Your task to perform on an android device: open a new tab in the chrome app Image 0: 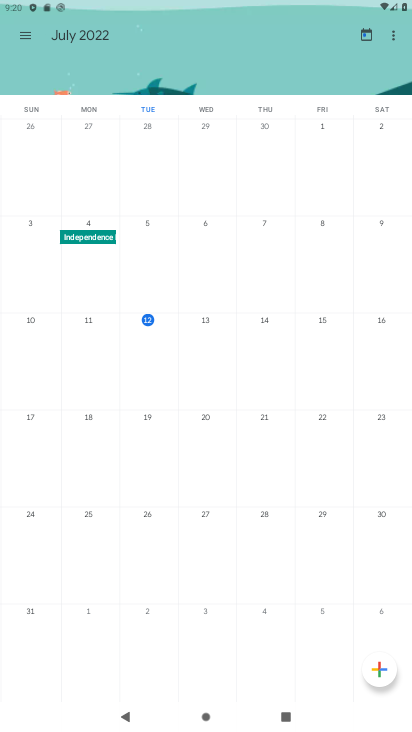
Step 0: press home button
Your task to perform on an android device: open a new tab in the chrome app Image 1: 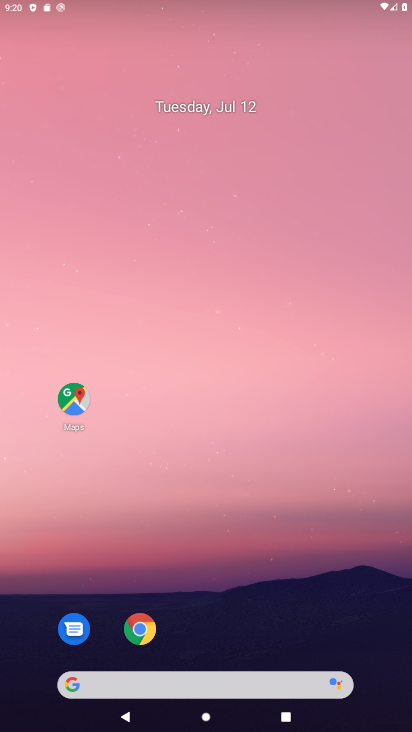
Step 1: drag from (254, 643) to (379, 140)
Your task to perform on an android device: open a new tab in the chrome app Image 2: 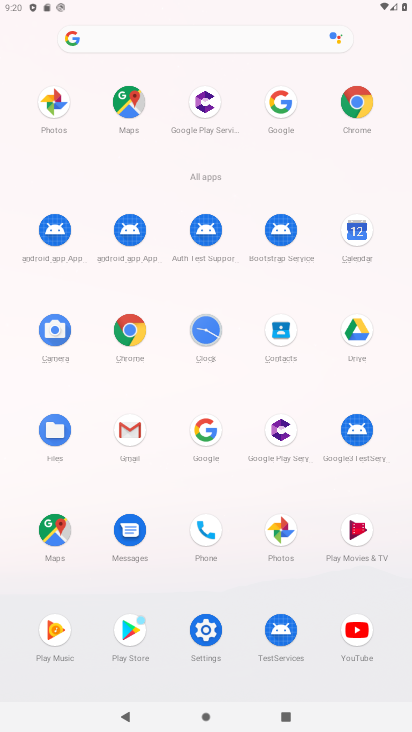
Step 2: click (131, 329)
Your task to perform on an android device: open a new tab in the chrome app Image 3: 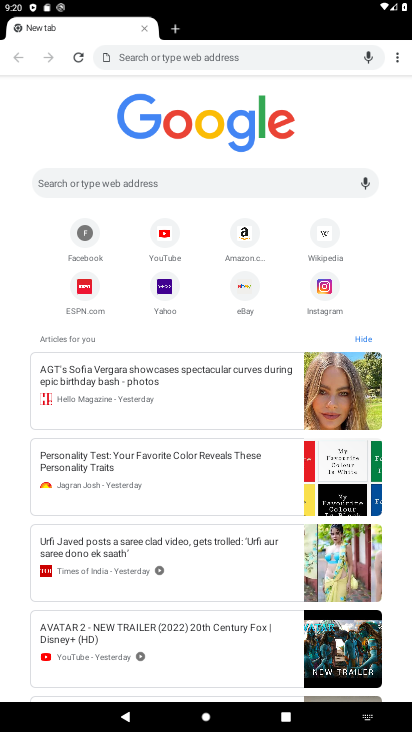
Step 3: click (400, 51)
Your task to perform on an android device: open a new tab in the chrome app Image 4: 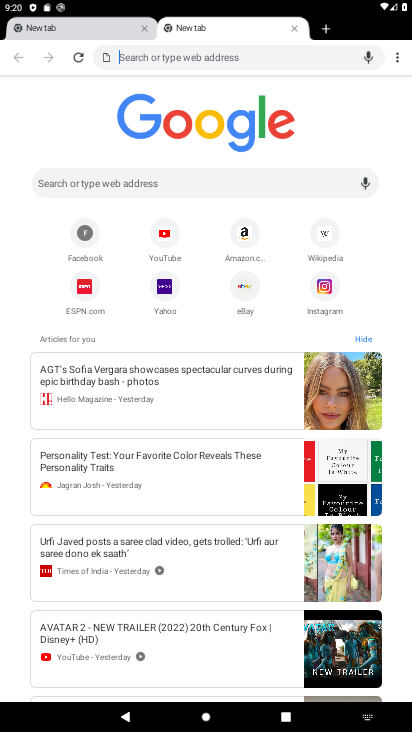
Step 4: task complete